Your task to perform on an android device: change the clock display to analog Image 0: 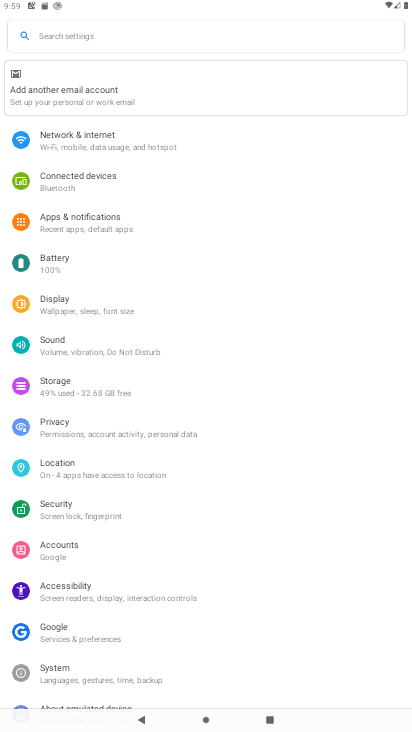
Step 0: press home button
Your task to perform on an android device: change the clock display to analog Image 1: 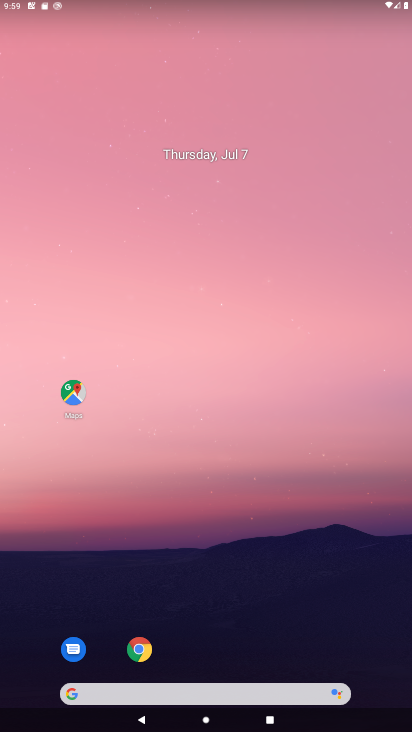
Step 1: drag from (258, 517) to (306, 26)
Your task to perform on an android device: change the clock display to analog Image 2: 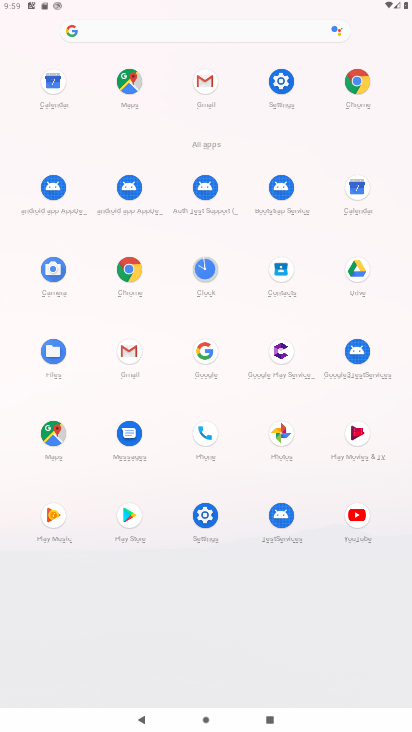
Step 2: click (210, 259)
Your task to perform on an android device: change the clock display to analog Image 3: 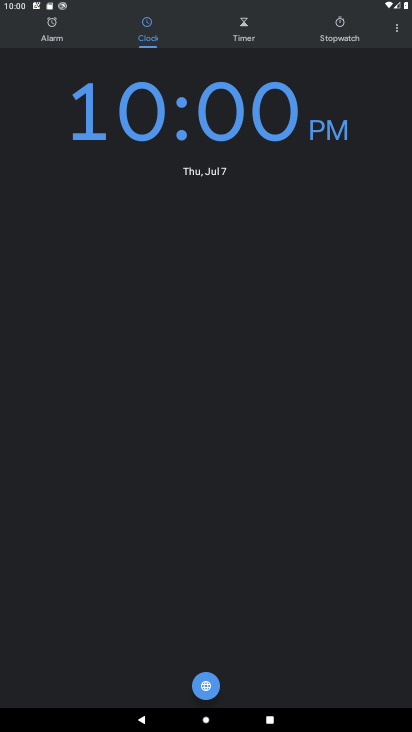
Step 3: click (394, 20)
Your task to perform on an android device: change the clock display to analog Image 4: 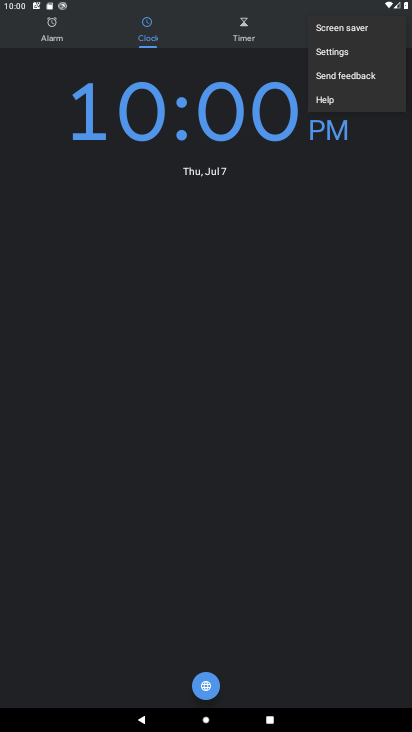
Step 4: click (343, 56)
Your task to perform on an android device: change the clock display to analog Image 5: 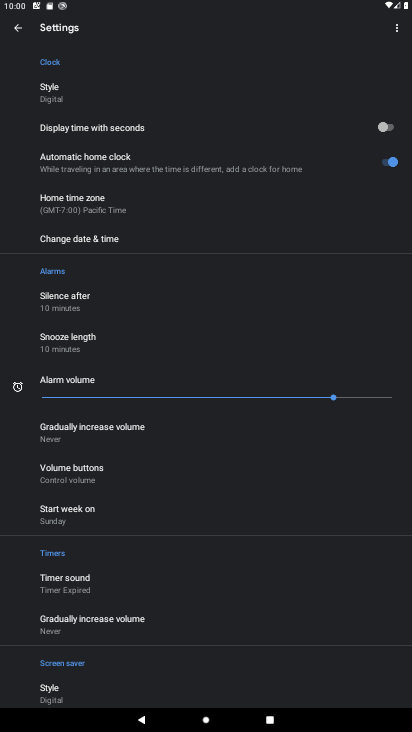
Step 5: click (131, 91)
Your task to perform on an android device: change the clock display to analog Image 6: 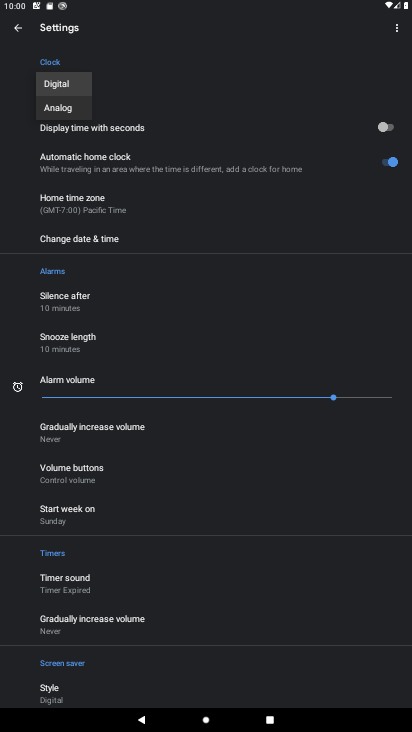
Step 6: click (70, 107)
Your task to perform on an android device: change the clock display to analog Image 7: 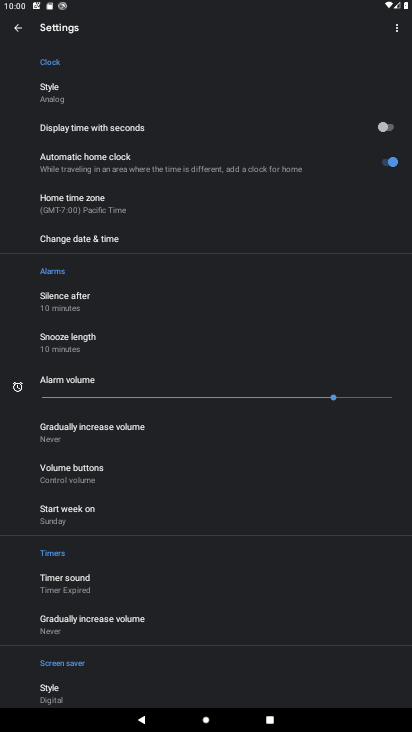
Step 7: task complete